Your task to perform on an android device: manage bookmarks in the chrome app Image 0: 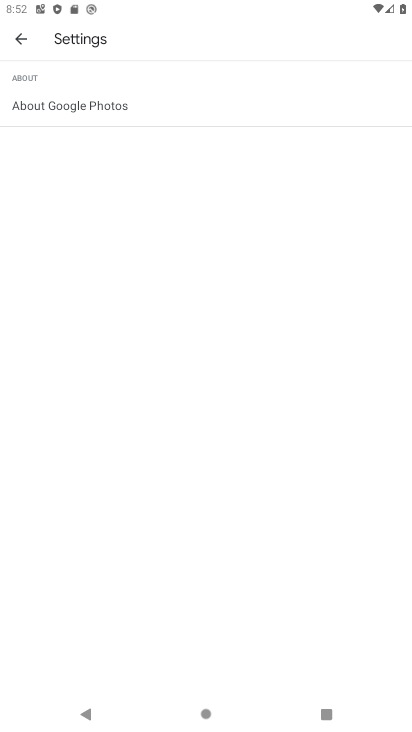
Step 0: press home button
Your task to perform on an android device: manage bookmarks in the chrome app Image 1: 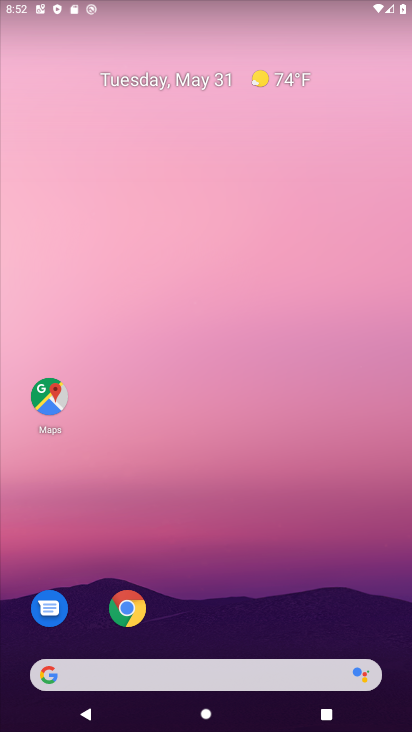
Step 1: click (141, 610)
Your task to perform on an android device: manage bookmarks in the chrome app Image 2: 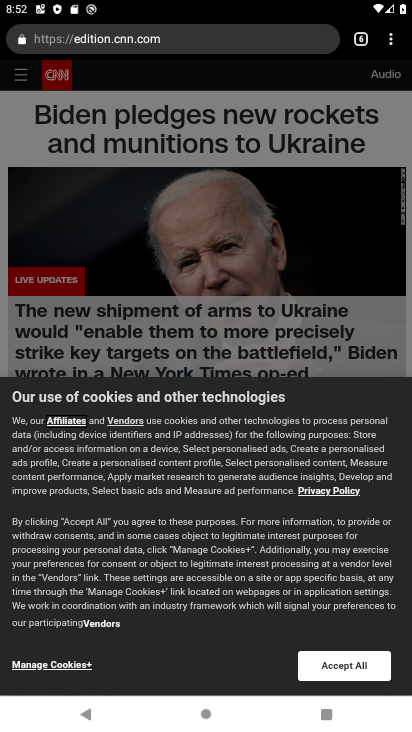
Step 2: click (324, 658)
Your task to perform on an android device: manage bookmarks in the chrome app Image 3: 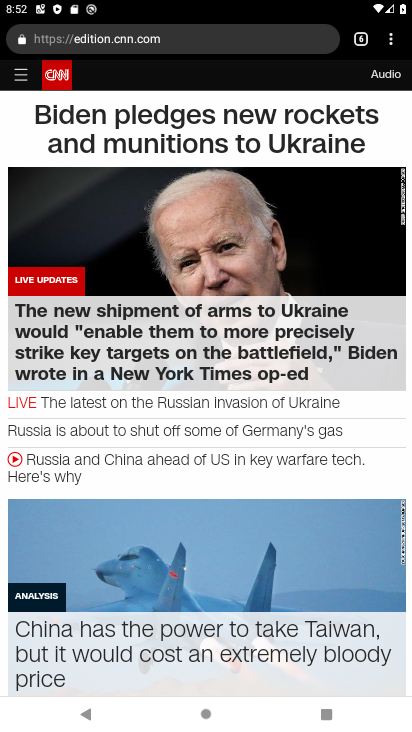
Step 3: click (388, 43)
Your task to perform on an android device: manage bookmarks in the chrome app Image 4: 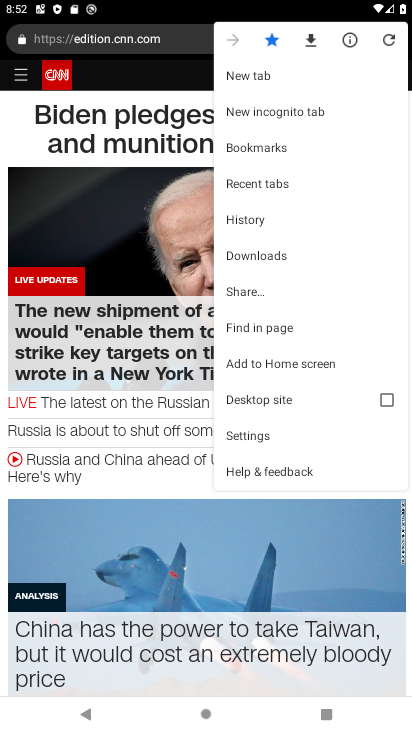
Step 4: click (291, 143)
Your task to perform on an android device: manage bookmarks in the chrome app Image 5: 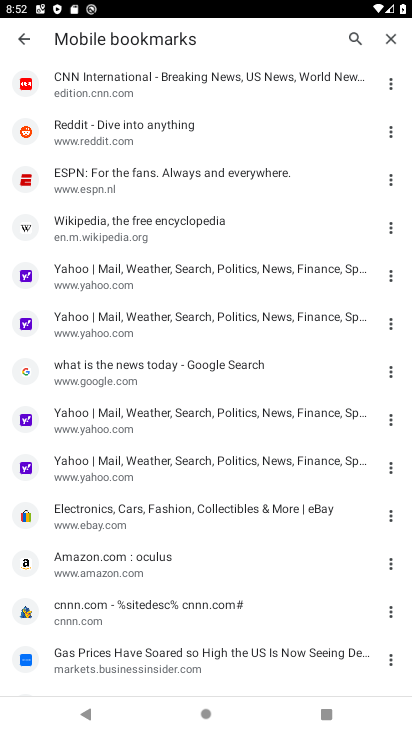
Step 5: click (391, 80)
Your task to perform on an android device: manage bookmarks in the chrome app Image 6: 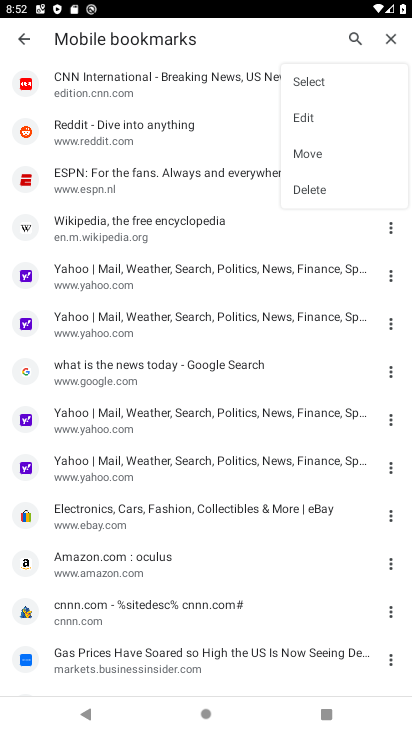
Step 6: click (307, 107)
Your task to perform on an android device: manage bookmarks in the chrome app Image 7: 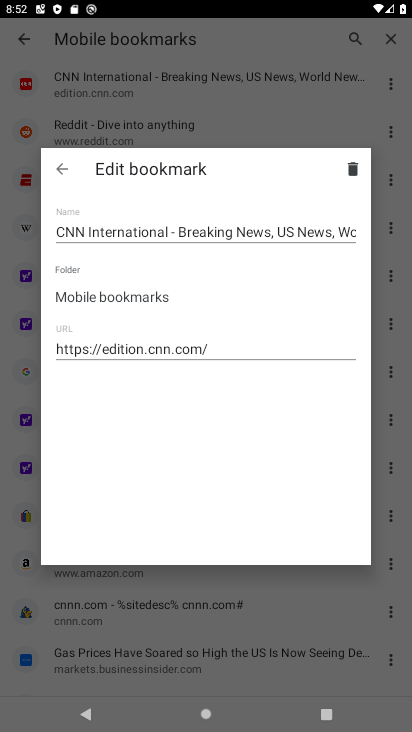
Step 7: task complete